Your task to perform on an android device: check google app version Image 0: 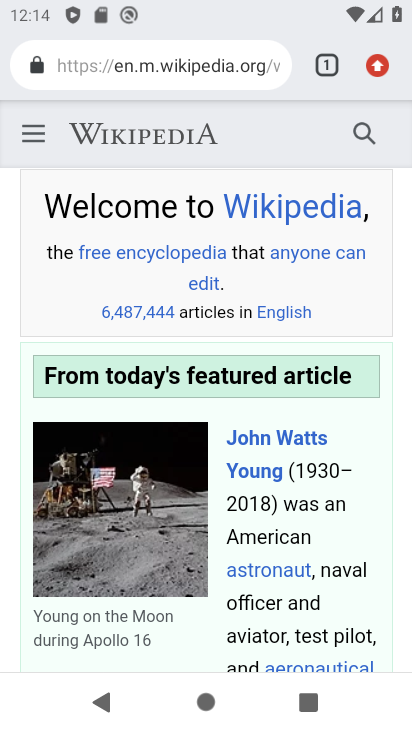
Step 0: press home button
Your task to perform on an android device: check google app version Image 1: 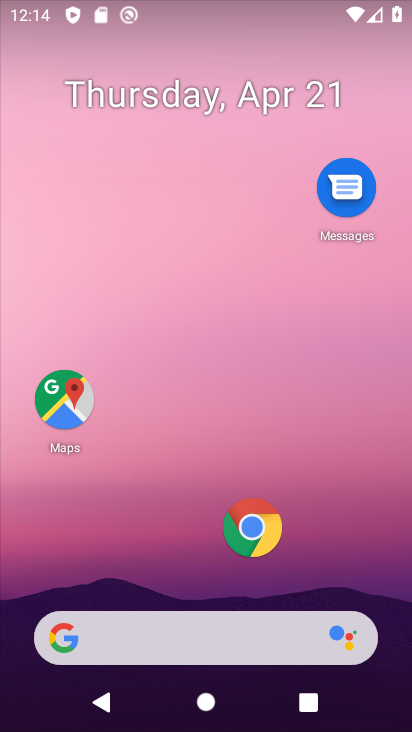
Step 1: drag from (214, 545) to (291, 119)
Your task to perform on an android device: check google app version Image 2: 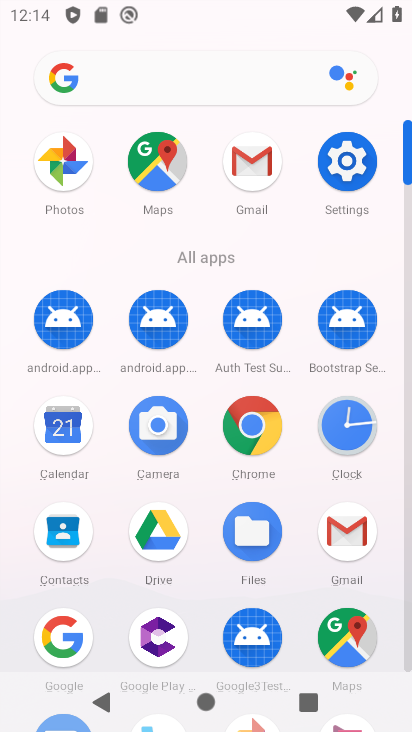
Step 2: click (67, 643)
Your task to perform on an android device: check google app version Image 3: 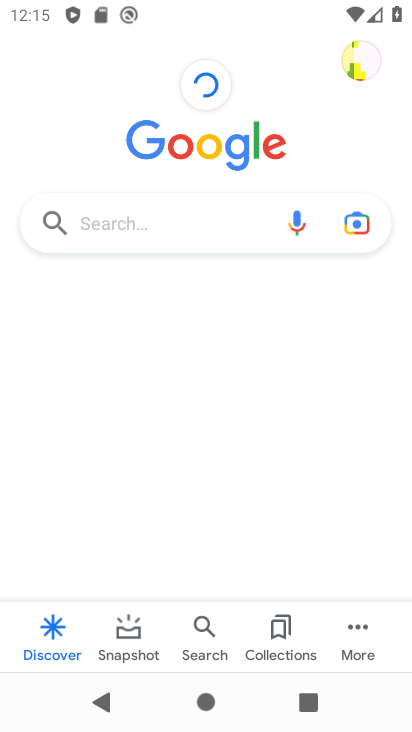
Step 3: click (348, 642)
Your task to perform on an android device: check google app version Image 4: 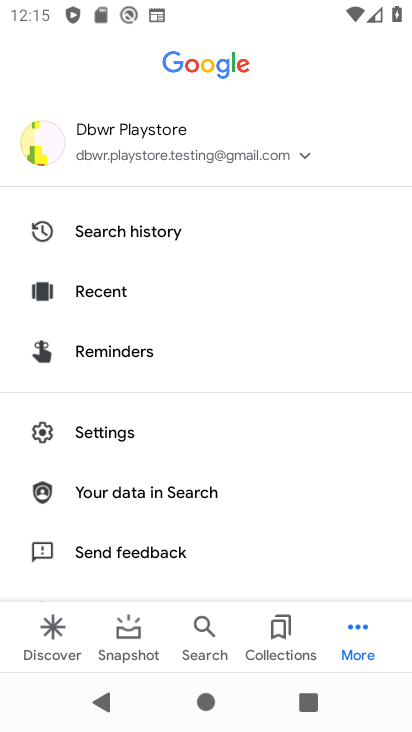
Step 4: drag from (260, 555) to (304, 427)
Your task to perform on an android device: check google app version Image 5: 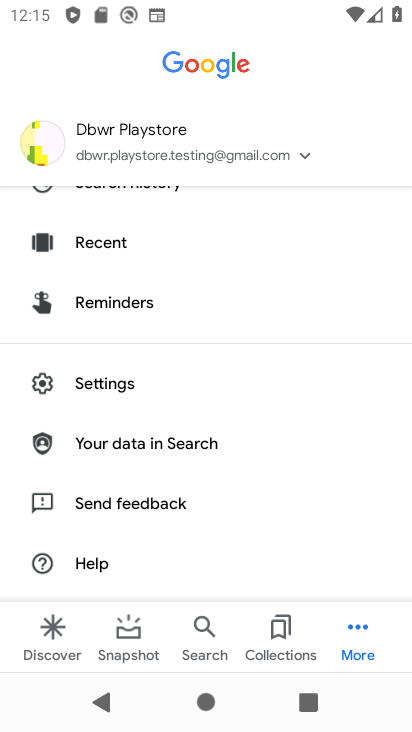
Step 5: click (305, 383)
Your task to perform on an android device: check google app version Image 6: 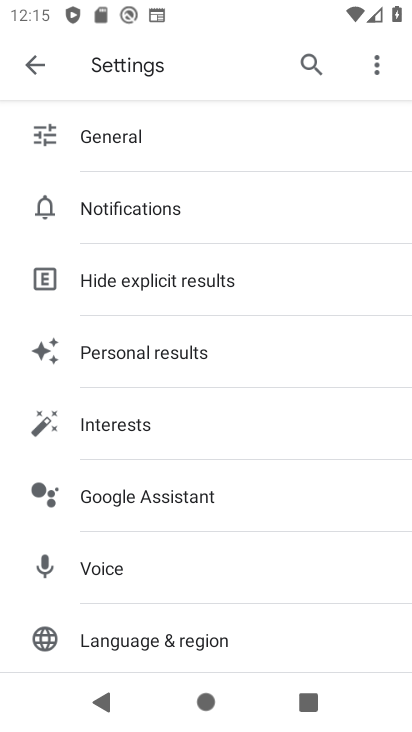
Step 6: drag from (274, 559) to (293, 392)
Your task to perform on an android device: check google app version Image 7: 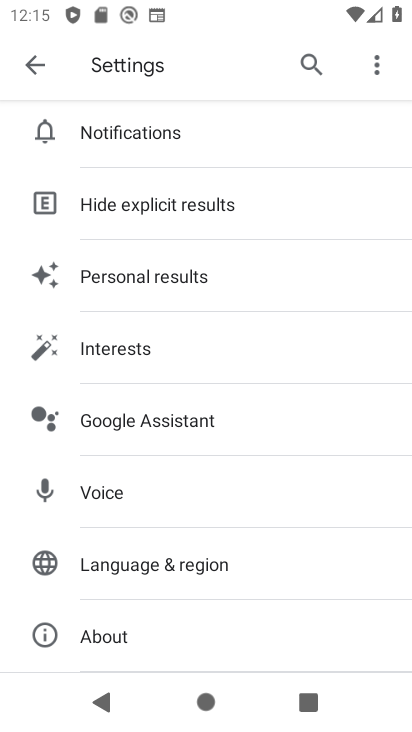
Step 7: drag from (184, 520) to (195, 426)
Your task to perform on an android device: check google app version Image 8: 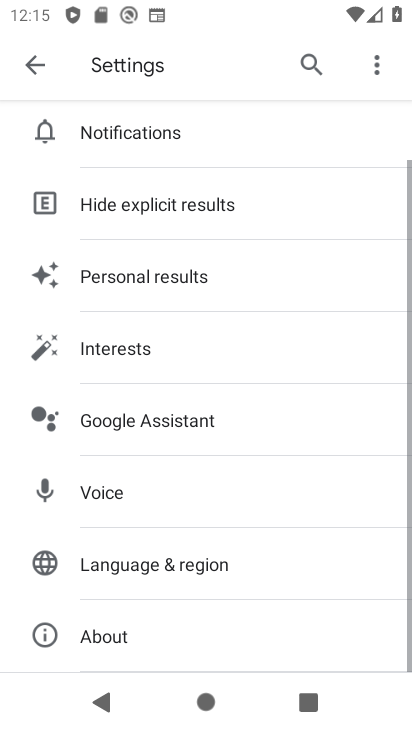
Step 8: click (135, 622)
Your task to perform on an android device: check google app version Image 9: 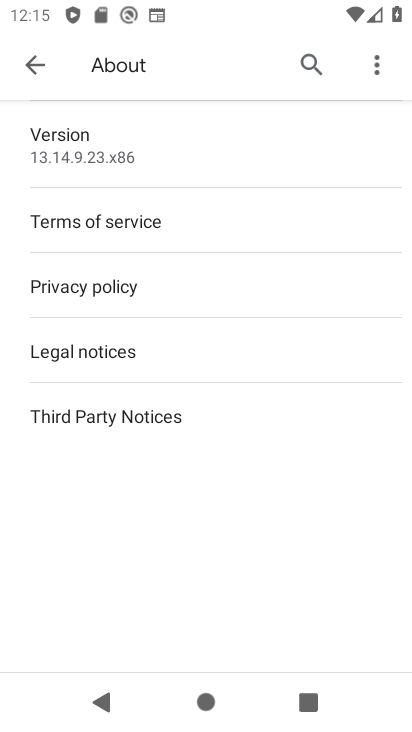
Step 9: click (156, 167)
Your task to perform on an android device: check google app version Image 10: 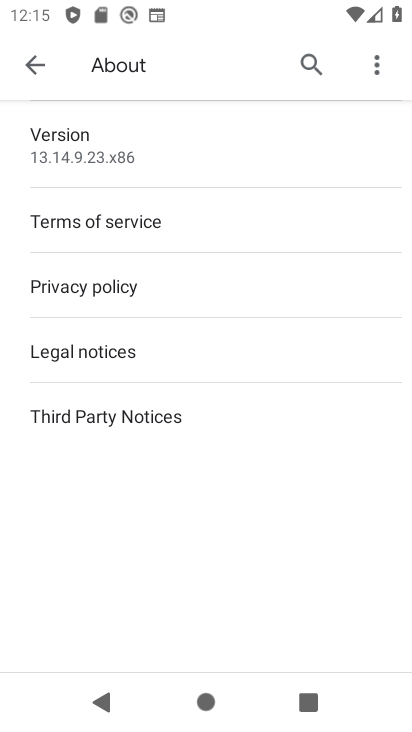
Step 10: click (131, 147)
Your task to perform on an android device: check google app version Image 11: 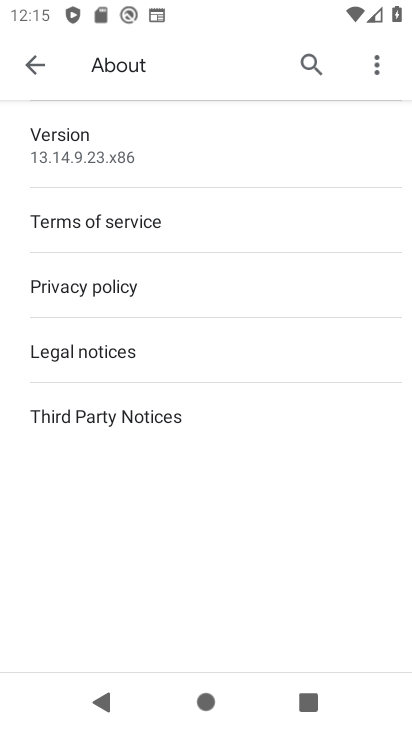
Step 11: task complete